Your task to perform on an android device: toggle improve location accuracy Image 0: 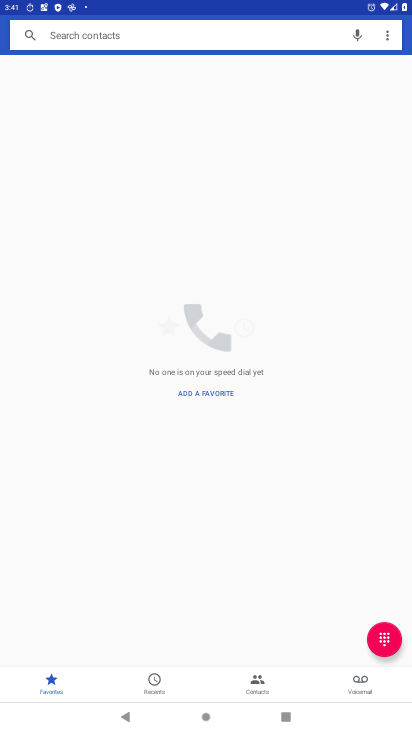
Step 0: press home button
Your task to perform on an android device: toggle improve location accuracy Image 1: 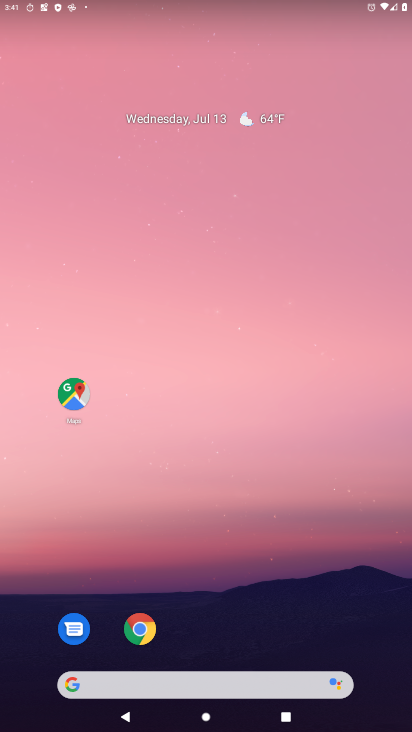
Step 1: drag from (192, 674) to (140, 3)
Your task to perform on an android device: toggle improve location accuracy Image 2: 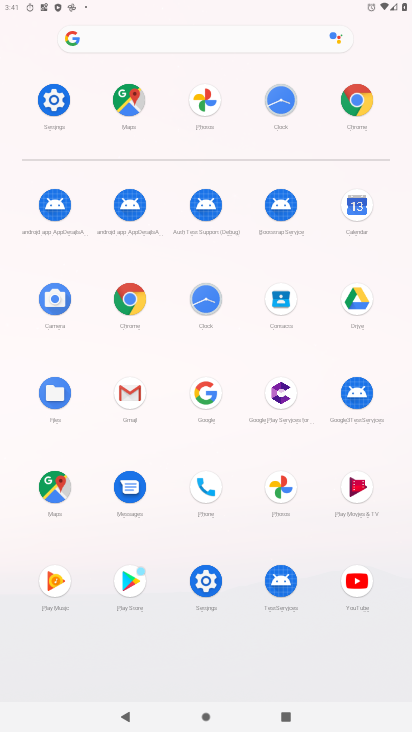
Step 2: click (61, 98)
Your task to perform on an android device: toggle improve location accuracy Image 3: 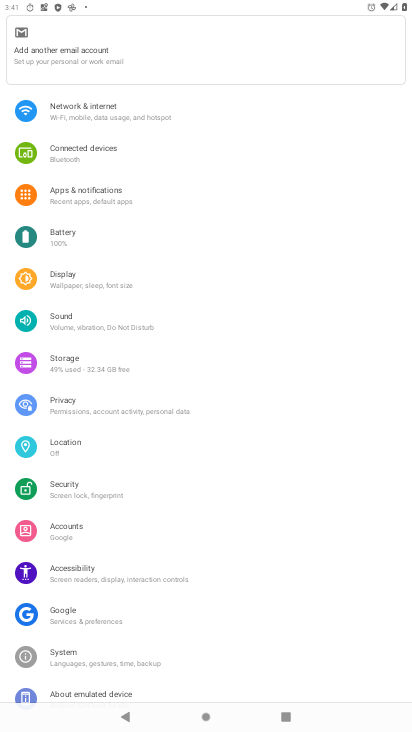
Step 3: click (73, 439)
Your task to perform on an android device: toggle improve location accuracy Image 4: 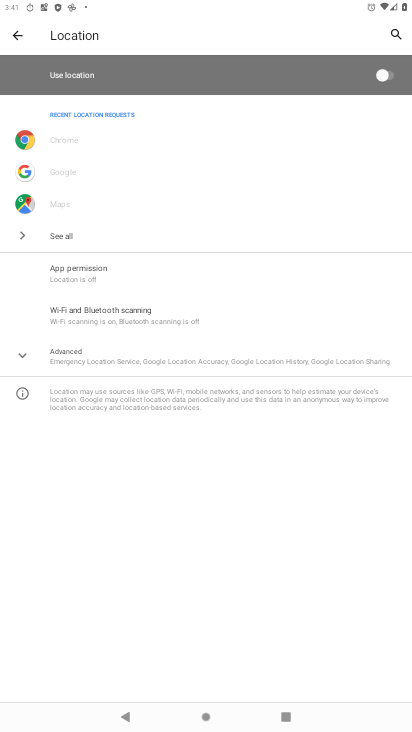
Step 4: click (179, 354)
Your task to perform on an android device: toggle improve location accuracy Image 5: 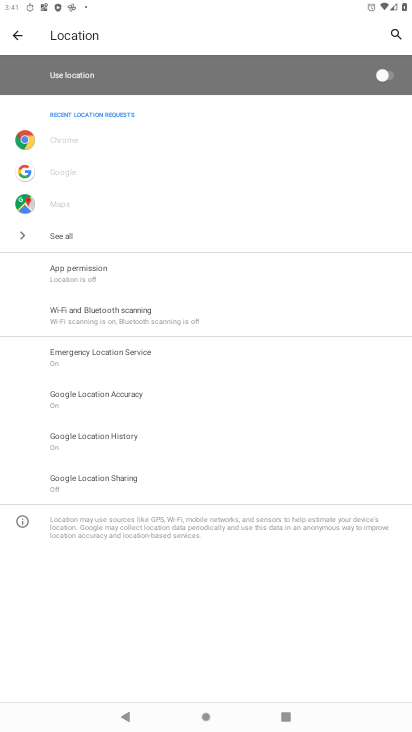
Step 5: click (117, 402)
Your task to perform on an android device: toggle improve location accuracy Image 6: 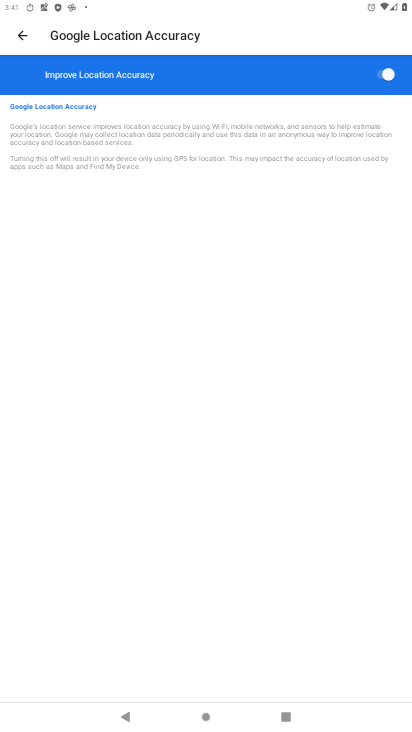
Step 6: click (379, 74)
Your task to perform on an android device: toggle improve location accuracy Image 7: 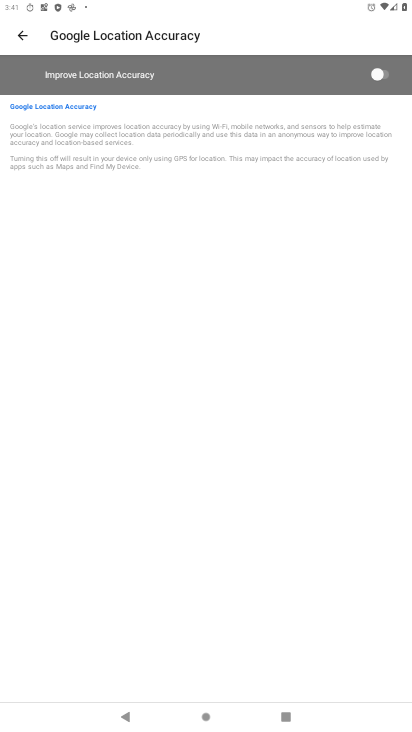
Step 7: task complete